Your task to perform on an android device: open app "Google Keep" Image 0: 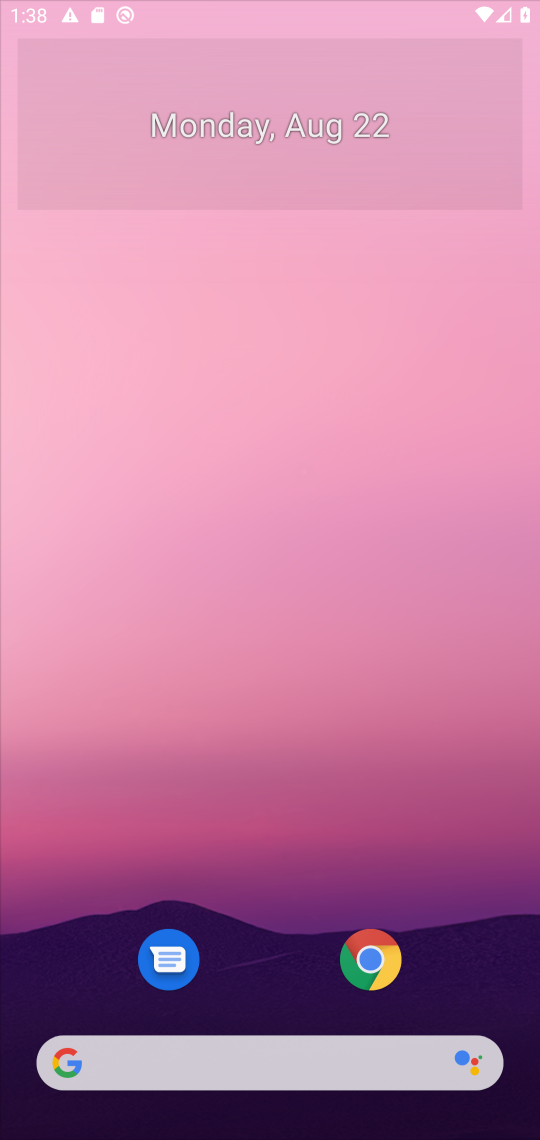
Step 0: press home button
Your task to perform on an android device: open app "Google Keep" Image 1: 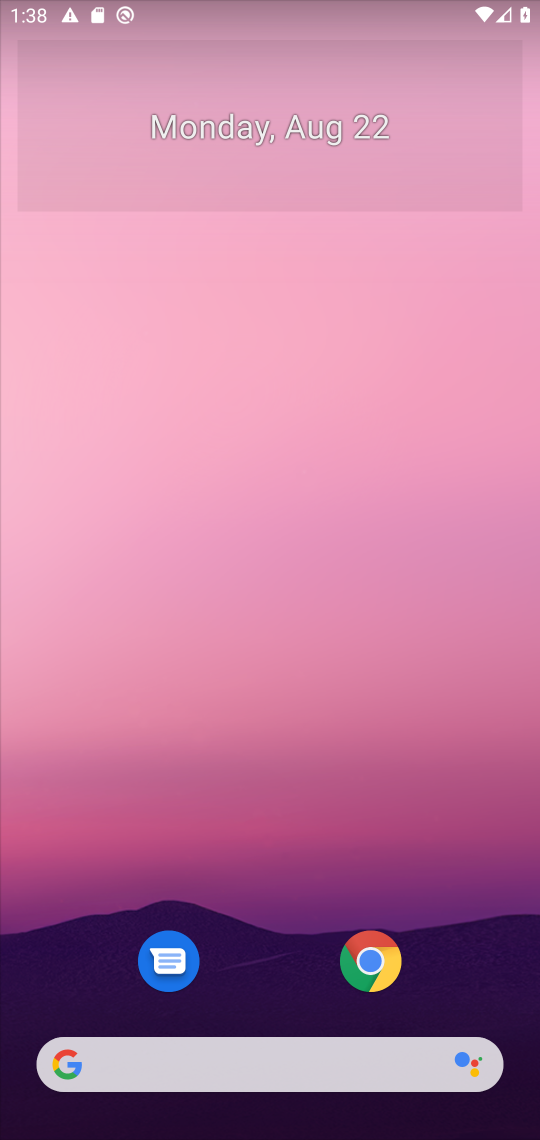
Step 1: drag from (461, 845) to (438, 251)
Your task to perform on an android device: open app "Google Keep" Image 2: 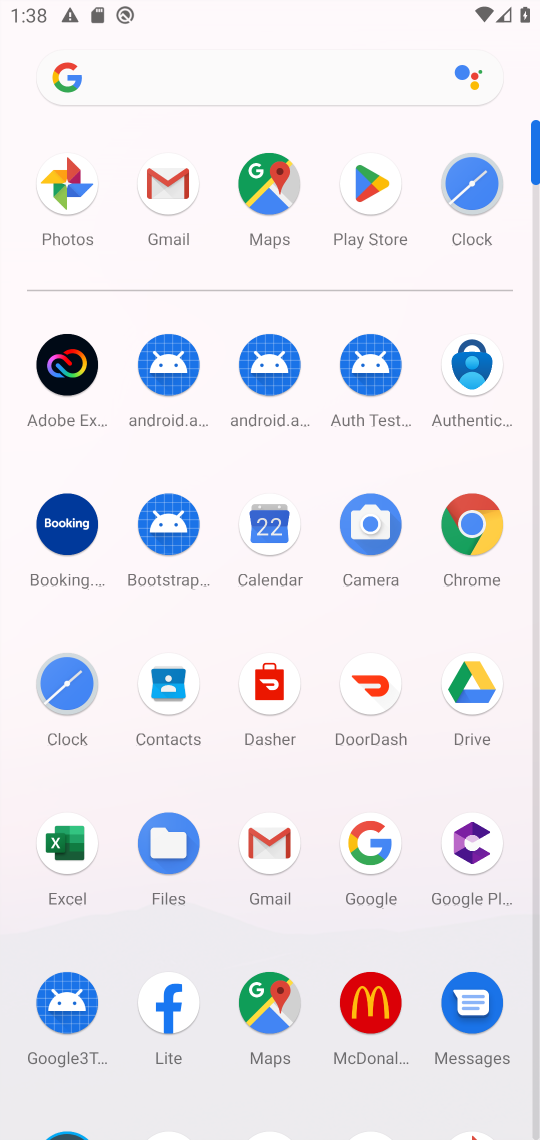
Step 2: click (375, 185)
Your task to perform on an android device: open app "Google Keep" Image 3: 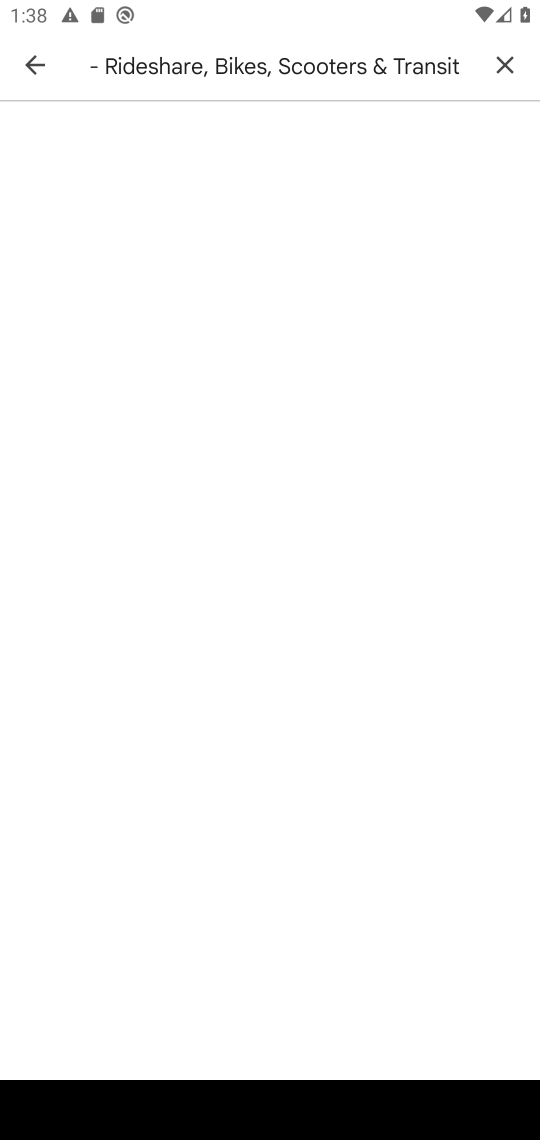
Step 3: press back button
Your task to perform on an android device: open app "Google Keep" Image 4: 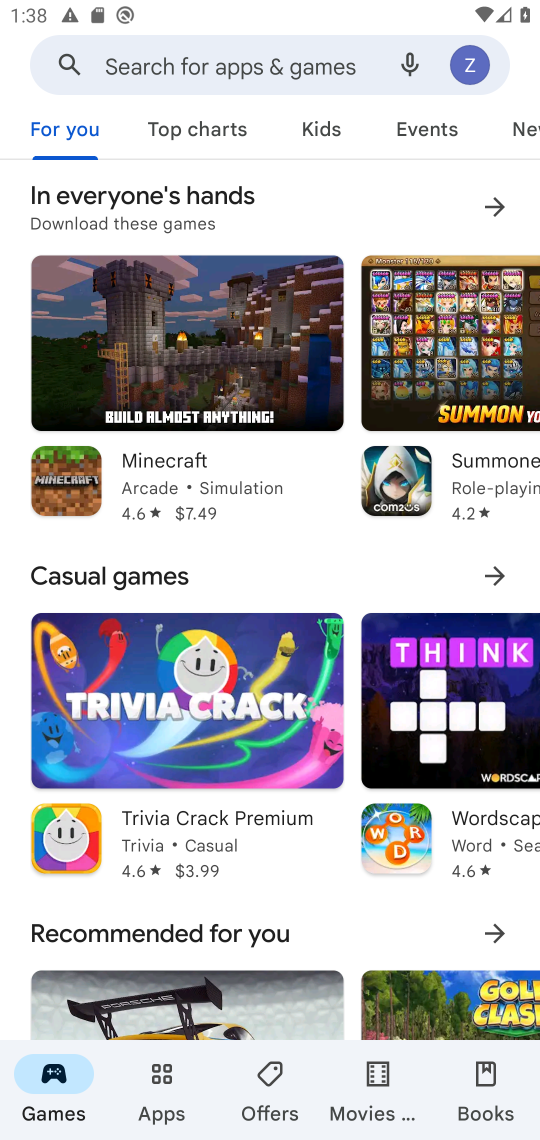
Step 4: click (293, 60)
Your task to perform on an android device: open app "Google Keep" Image 5: 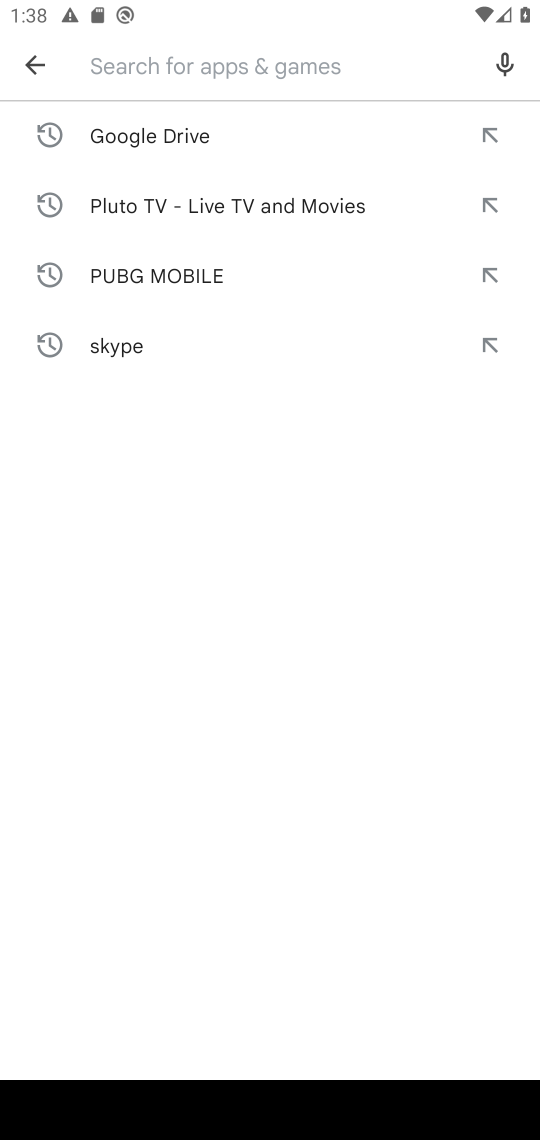
Step 5: press enter
Your task to perform on an android device: open app "Google Keep" Image 6: 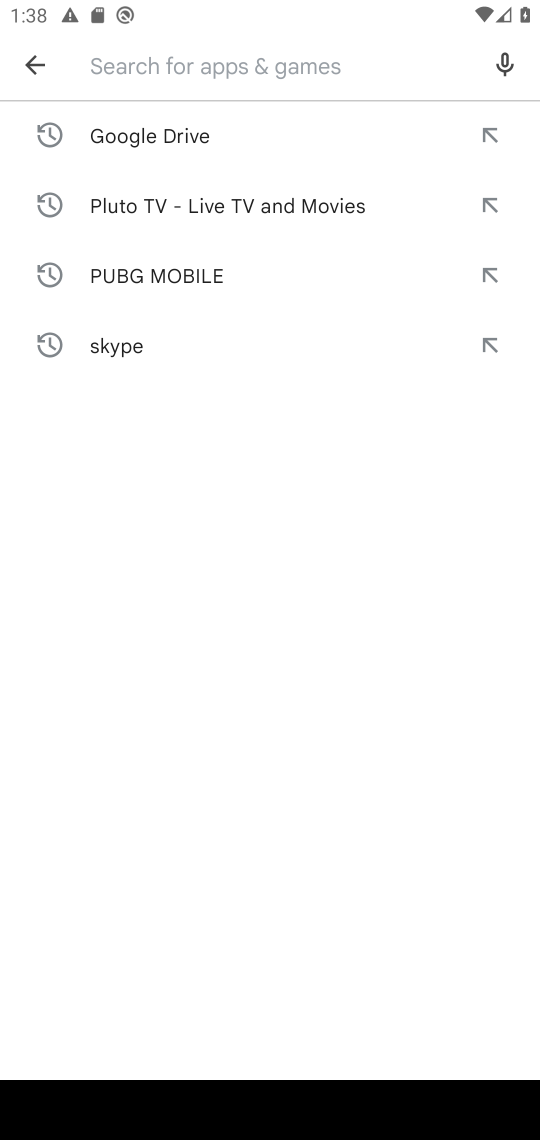
Step 6: type "google keep"
Your task to perform on an android device: open app "Google Keep" Image 7: 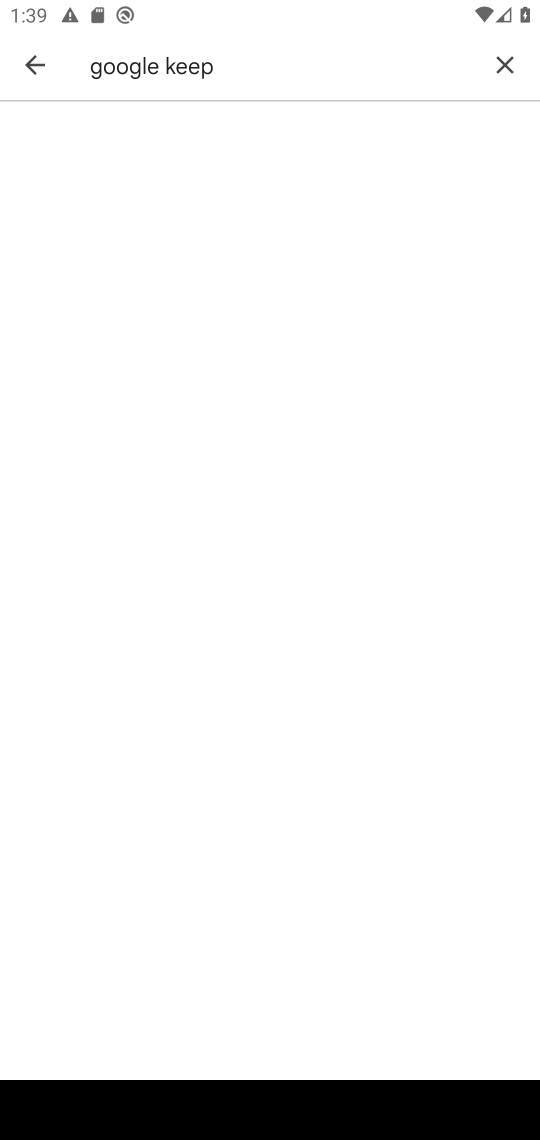
Step 7: task complete